Your task to perform on an android device: Open Google Image 0: 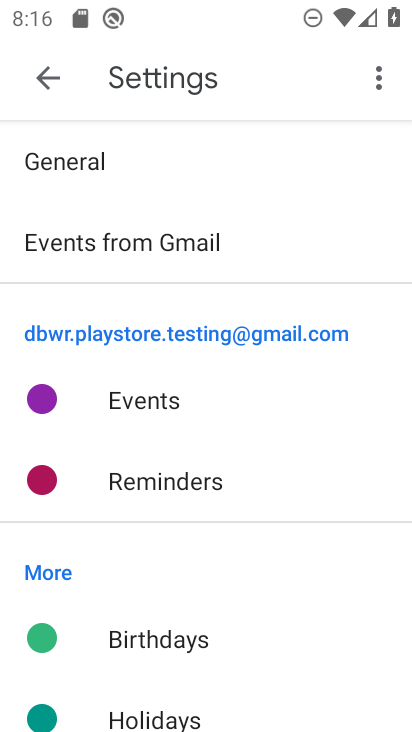
Step 0: press home button
Your task to perform on an android device: Open Google Image 1: 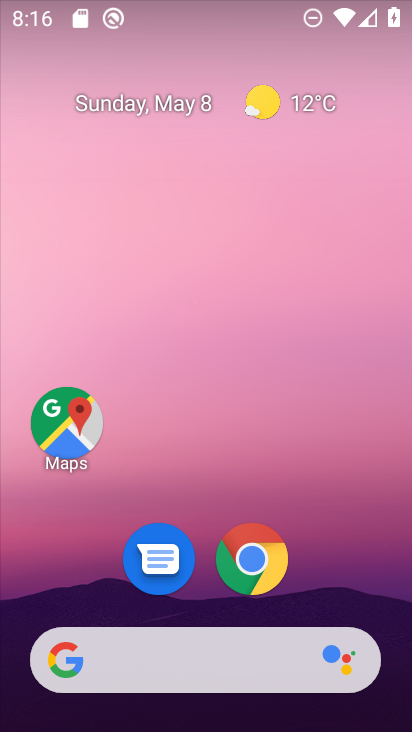
Step 1: drag from (343, 625) to (316, 33)
Your task to perform on an android device: Open Google Image 2: 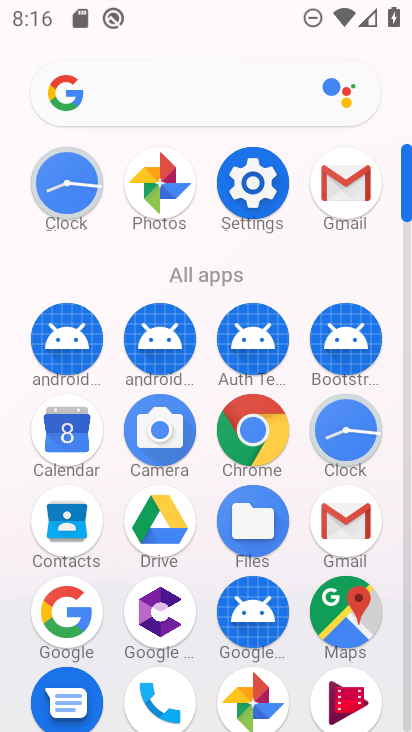
Step 2: click (64, 615)
Your task to perform on an android device: Open Google Image 3: 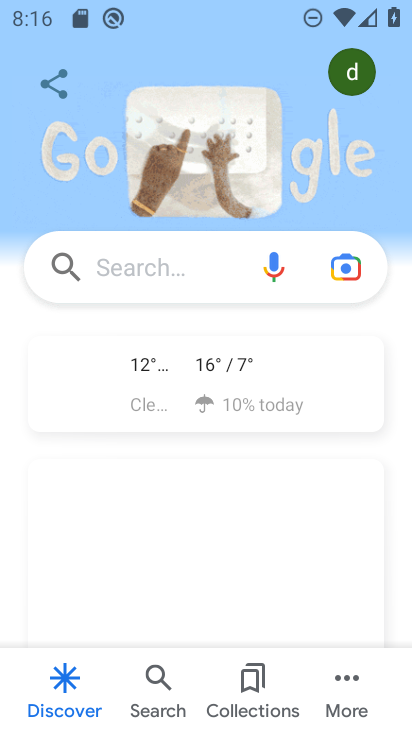
Step 3: task complete